Your task to perform on an android device: Search for flights from Sydney to Zurich Image 0: 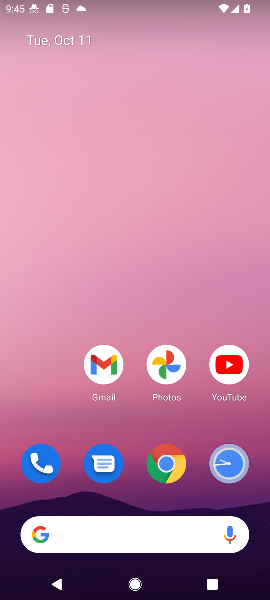
Step 0: drag from (161, 473) to (151, 145)
Your task to perform on an android device: Search for flights from Sydney to Zurich Image 1: 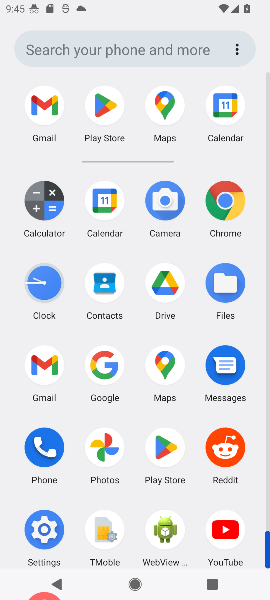
Step 1: click (108, 368)
Your task to perform on an android device: Search for flights from Sydney to Zurich Image 2: 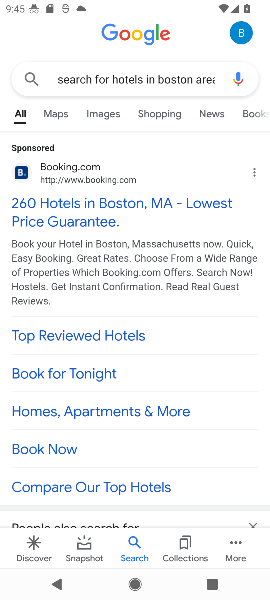
Step 2: click (157, 72)
Your task to perform on an android device: Search for flights from Sydney to Zurich Image 3: 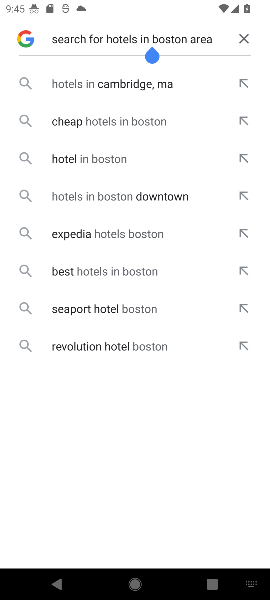
Step 3: click (240, 40)
Your task to perform on an android device: Search for flights from Sydney to Zurich Image 4: 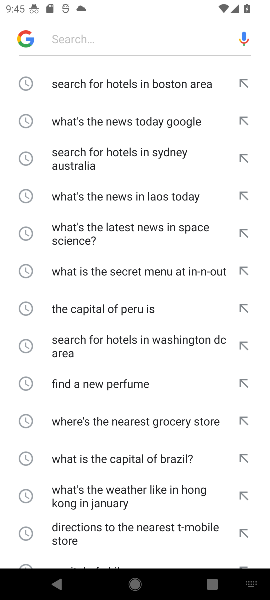
Step 4: click (123, 33)
Your task to perform on an android device: Search for flights from Sydney to Zurich Image 5: 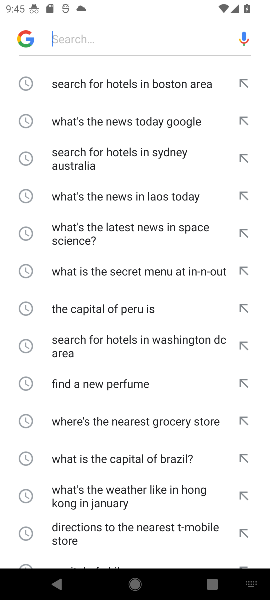
Step 5: type "Search for flights from Sydney to Zurich "
Your task to perform on an android device: Search for flights from Sydney to Zurich Image 6: 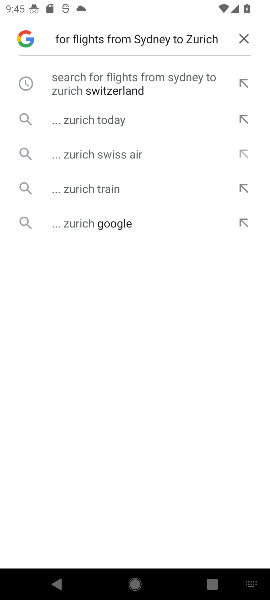
Step 6: click (128, 77)
Your task to perform on an android device: Search for flights from Sydney to Zurich Image 7: 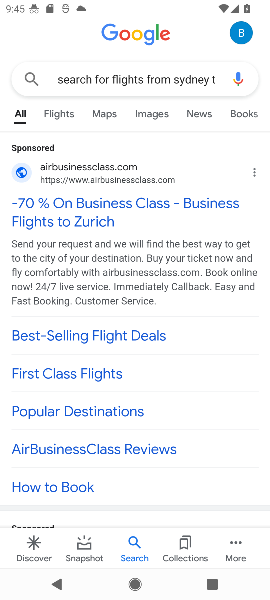
Step 7: click (138, 75)
Your task to perform on an android device: Search for flights from Sydney to Zurich Image 8: 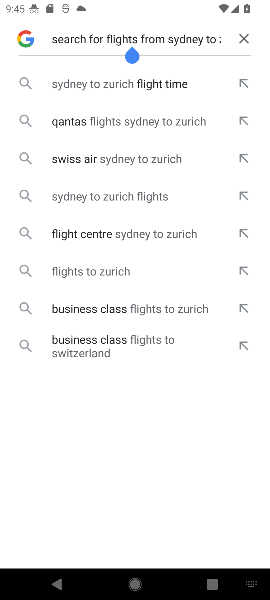
Step 8: click (169, 114)
Your task to perform on an android device: Search for flights from Sydney to Zurich Image 9: 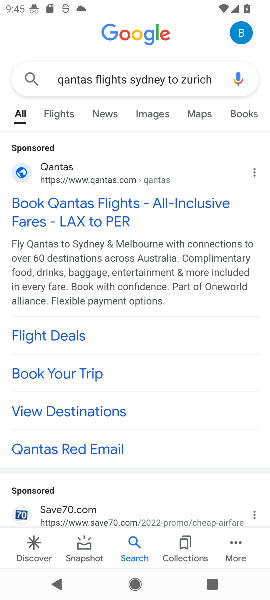
Step 9: click (47, 218)
Your task to perform on an android device: Search for flights from Sydney to Zurich Image 10: 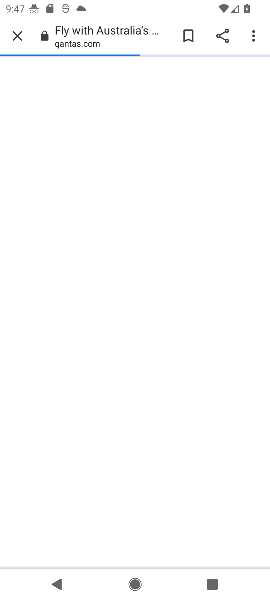
Step 10: task complete